Your task to perform on an android device: Find coffee shops on Maps Image 0: 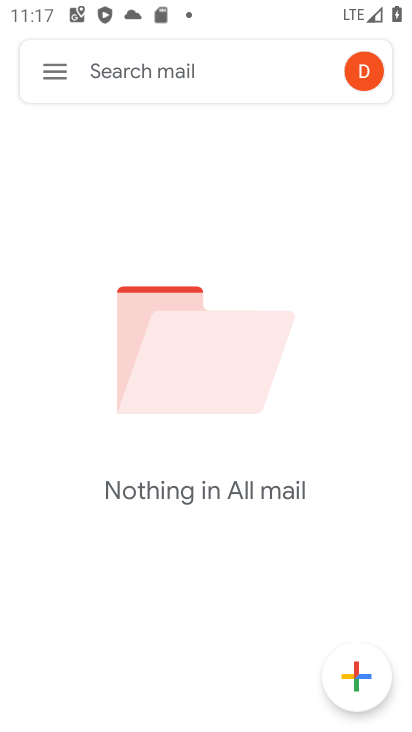
Step 0: press home button
Your task to perform on an android device: Find coffee shops on Maps Image 1: 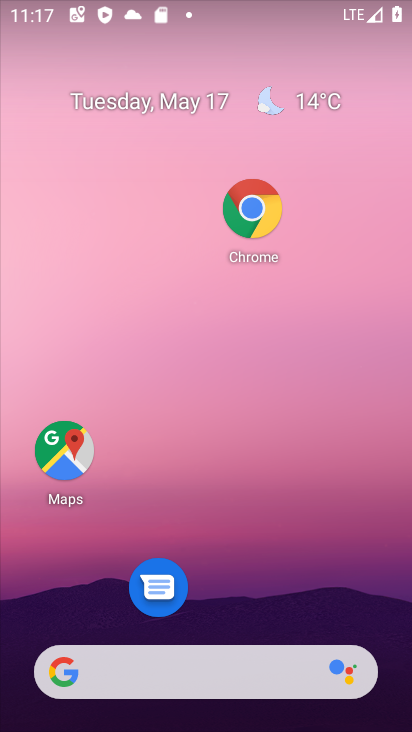
Step 1: click (74, 454)
Your task to perform on an android device: Find coffee shops on Maps Image 2: 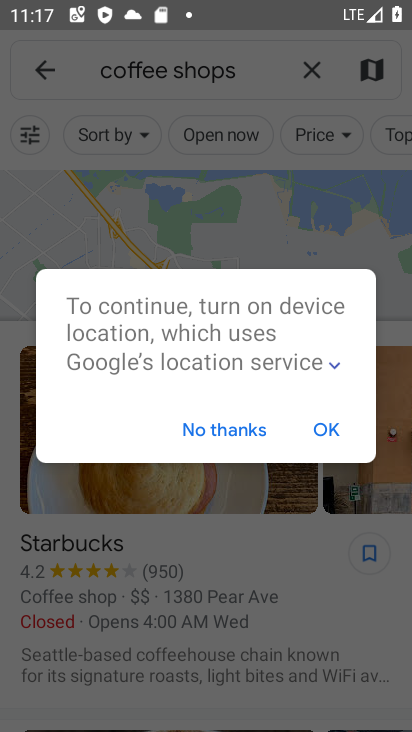
Step 2: task complete